Your task to perform on an android device: Open calendar and show me the second week of next month Image 0: 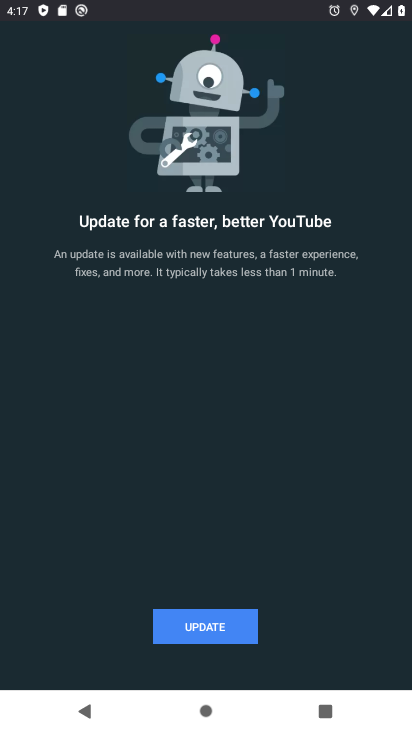
Step 0: press home button
Your task to perform on an android device: Open calendar and show me the second week of next month Image 1: 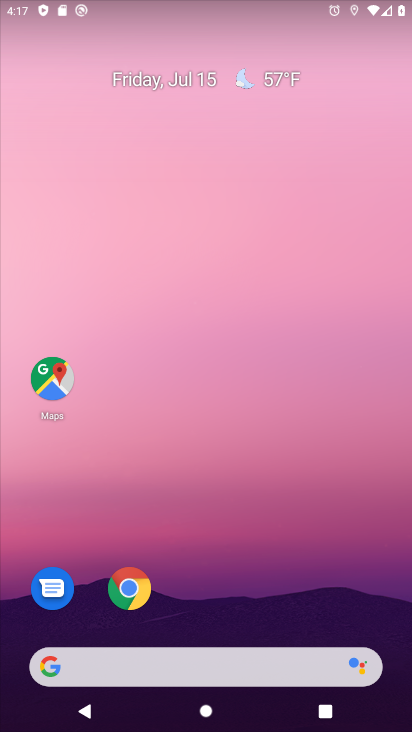
Step 1: drag from (190, 670) to (251, 66)
Your task to perform on an android device: Open calendar and show me the second week of next month Image 2: 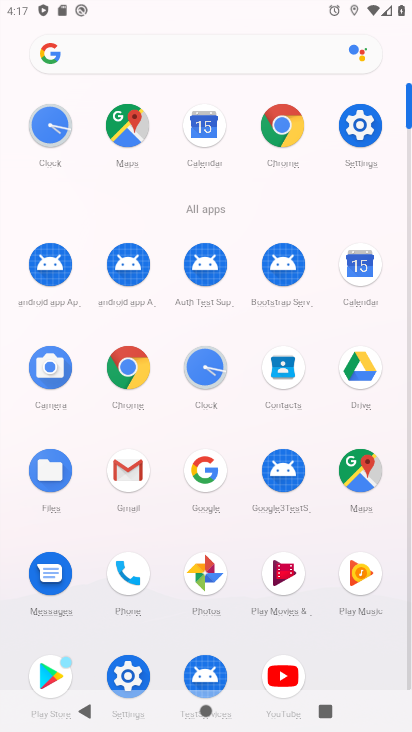
Step 2: click (202, 126)
Your task to perform on an android device: Open calendar and show me the second week of next month Image 3: 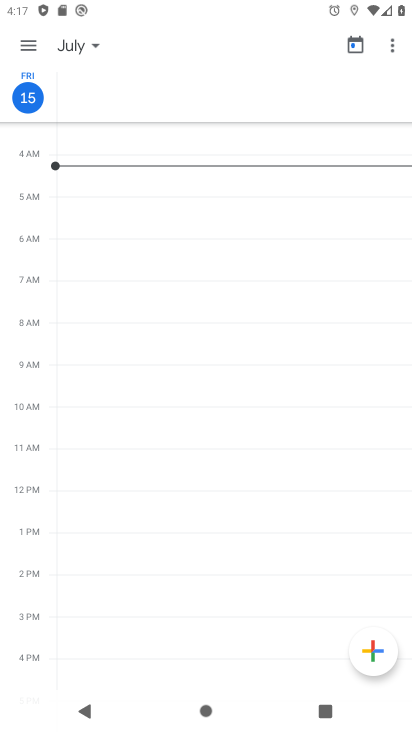
Step 3: click (357, 42)
Your task to perform on an android device: Open calendar and show me the second week of next month Image 4: 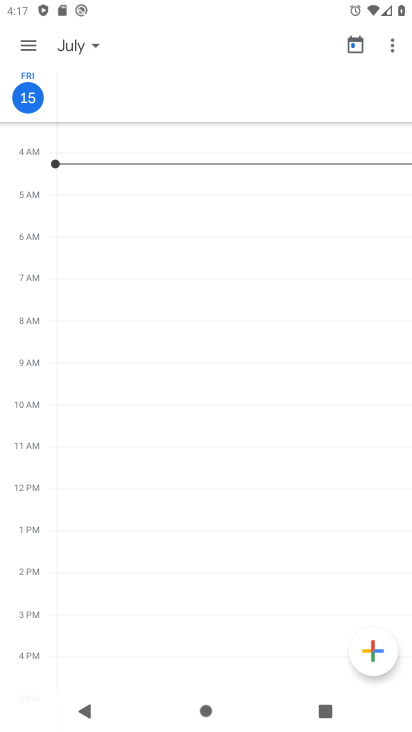
Step 4: click (92, 42)
Your task to perform on an android device: Open calendar and show me the second week of next month Image 5: 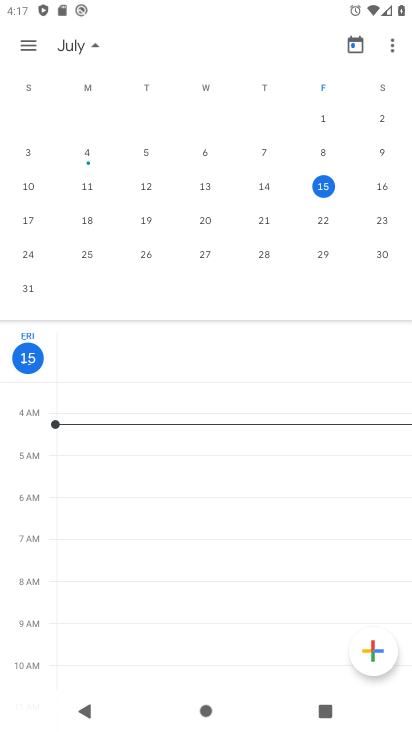
Step 5: drag from (379, 228) to (0, 211)
Your task to perform on an android device: Open calendar and show me the second week of next month Image 6: 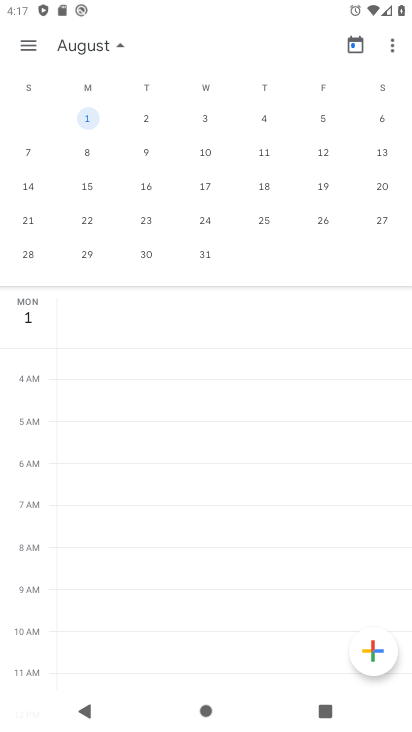
Step 6: click (84, 154)
Your task to perform on an android device: Open calendar and show me the second week of next month Image 7: 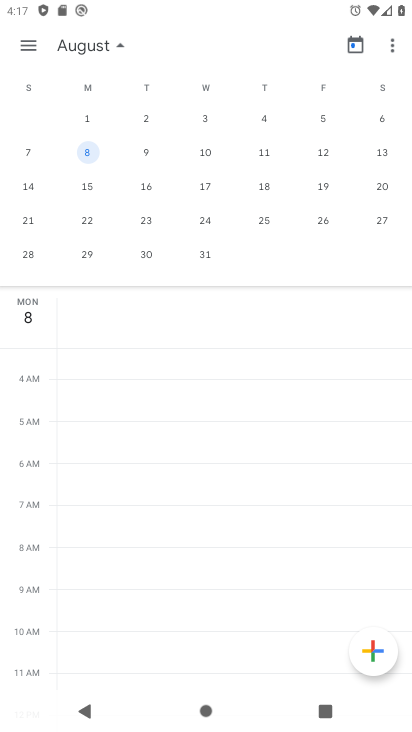
Step 7: click (30, 50)
Your task to perform on an android device: Open calendar and show me the second week of next month Image 8: 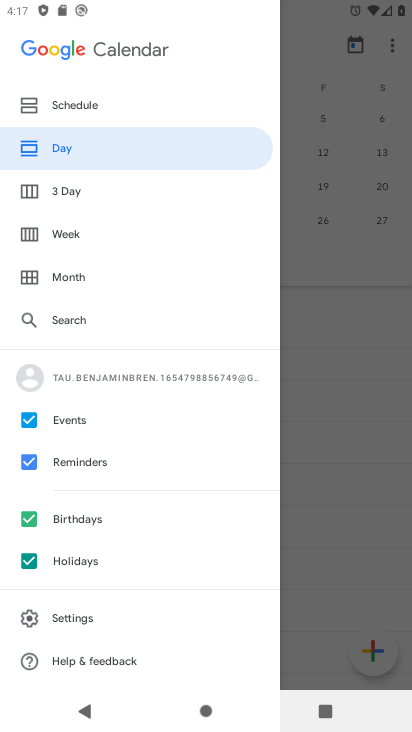
Step 8: click (70, 234)
Your task to perform on an android device: Open calendar and show me the second week of next month Image 9: 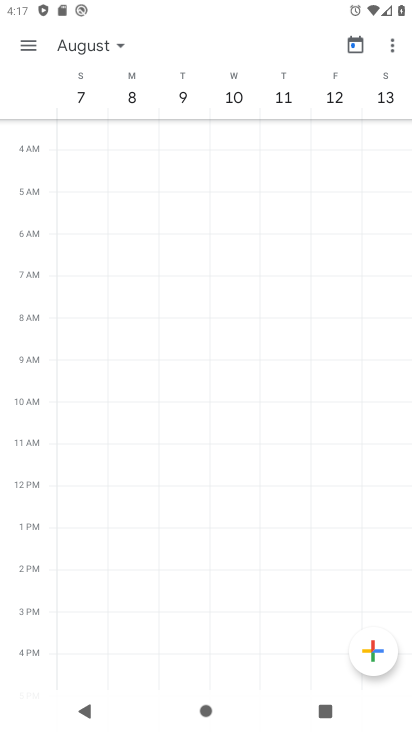
Step 9: task complete